Your task to perform on an android device: Go to location settings Image 0: 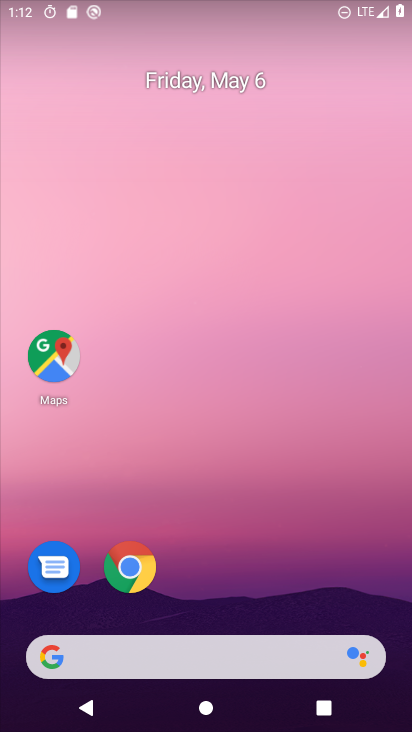
Step 0: drag from (307, 602) to (294, 44)
Your task to perform on an android device: Go to location settings Image 1: 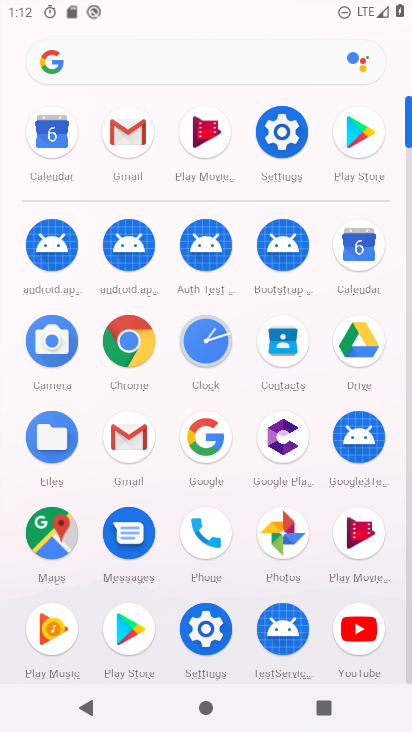
Step 1: click (283, 119)
Your task to perform on an android device: Go to location settings Image 2: 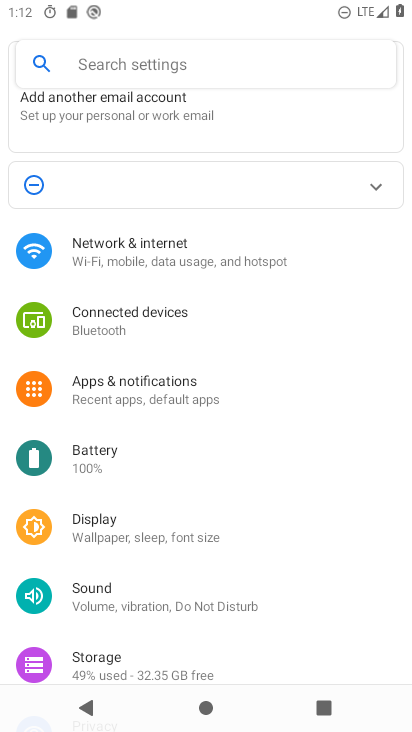
Step 2: drag from (317, 526) to (307, 305)
Your task to perform on an android device: Go to location settings Image 3: 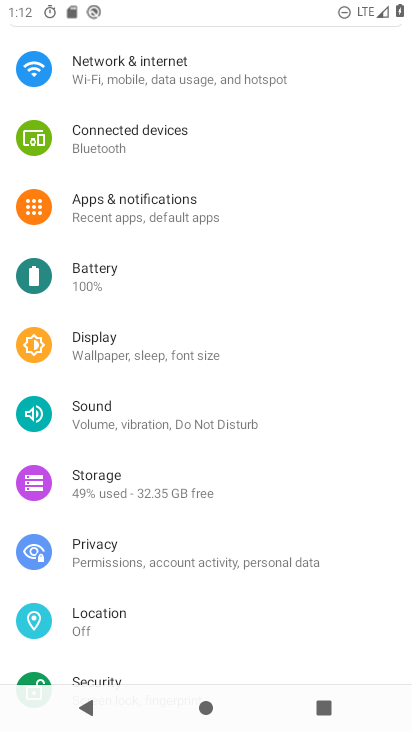
Step 3: click (96, 616)
Your task to perform on an android device: Go to location settings Image 4: 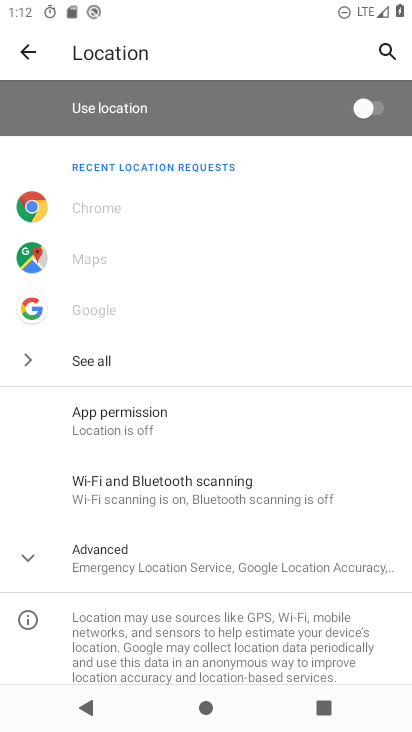
Step 4: task complete